Your task to perform on an android device: check battery use Image 0: 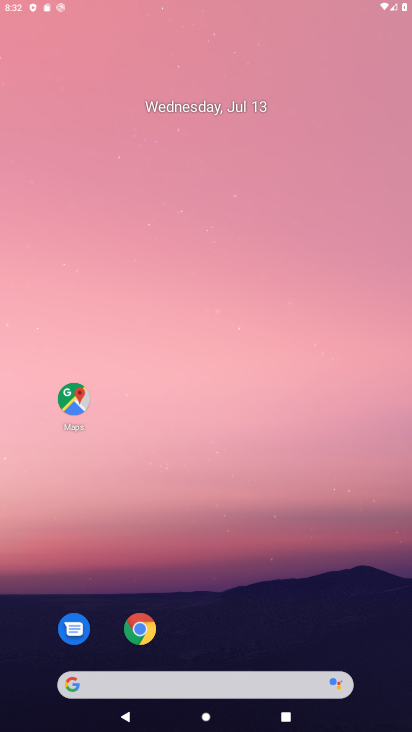
Step 0: click (326, 196)
Your task to perform on an android device: check battery use Image 1: 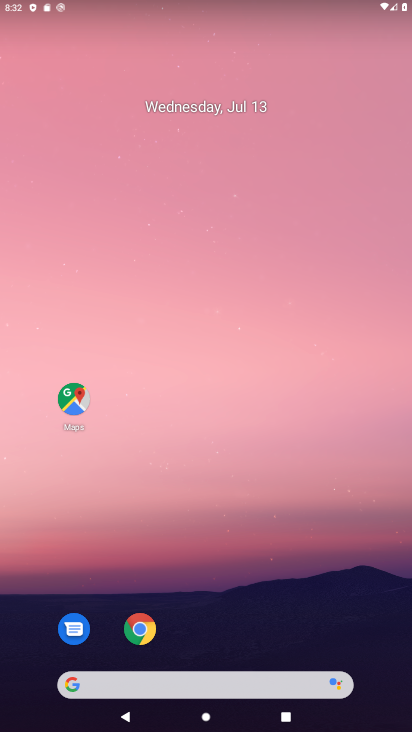
Step 1: drag from (217, 614) to (288, 244)
Your task to perform on an android device: check battery use Image 2: 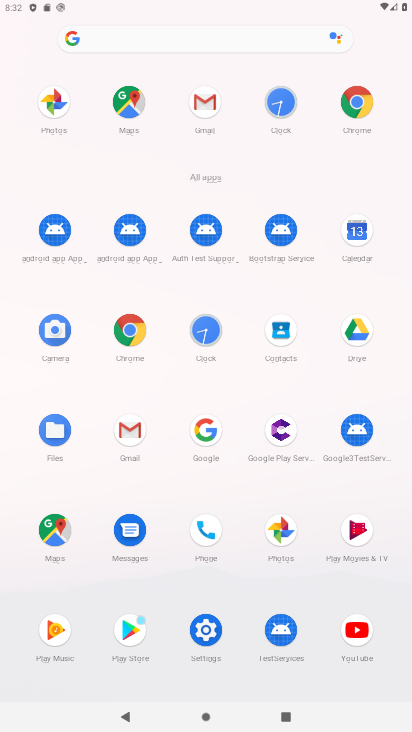
Step 2: click (202, 629)
Your task to perform on an android device: check battery use Image 3: 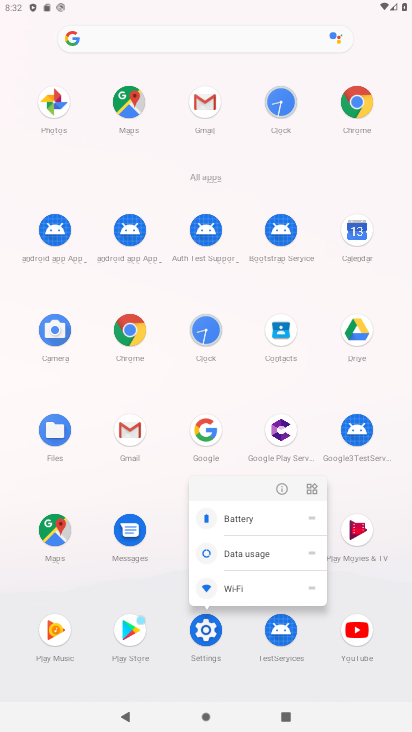
Step 3: click (202, 631)
Your task to perform on an android device: check battery use Image 4: 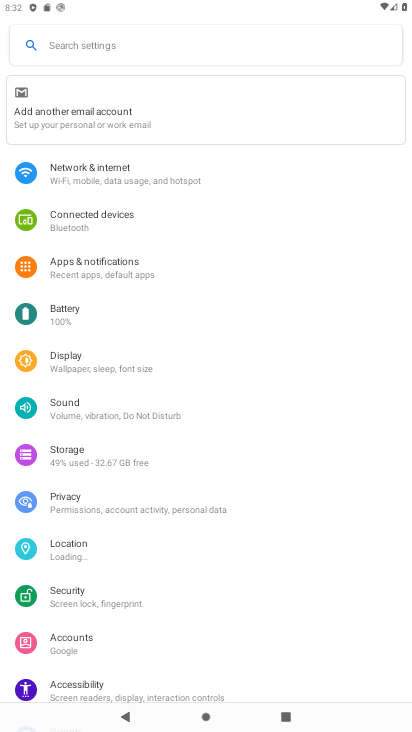
Step 4: click (77, 305)
Your task to perform on an android device: check battery use Image 5: 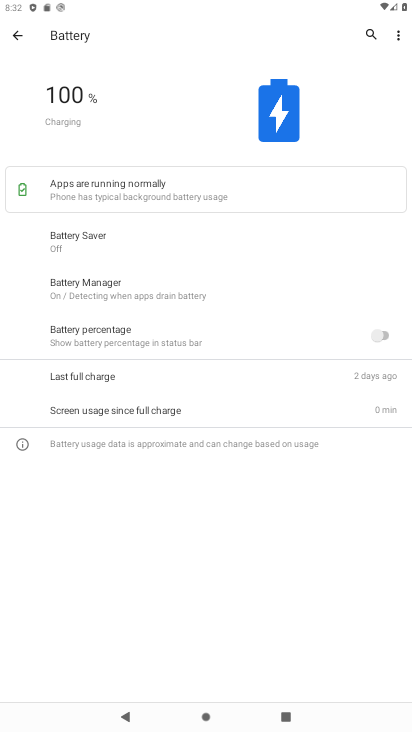
Step 5: drag from (399, 33) to (379, 61)
Your task to perform on an android device: check battery use Image 6: 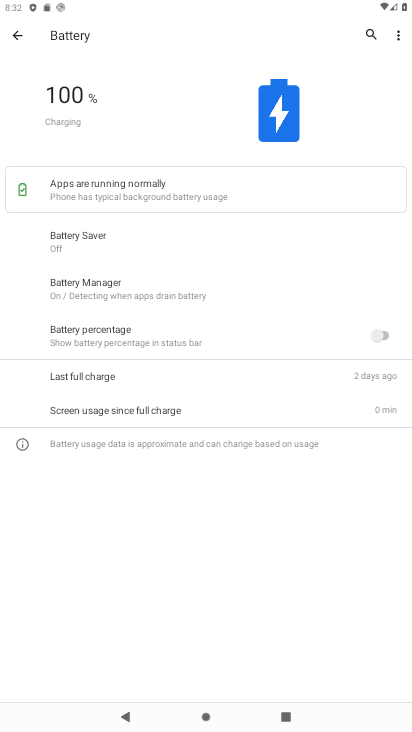
Step 6: click (361, 32)
Your task to perform on an android device: check battery use Image 7: 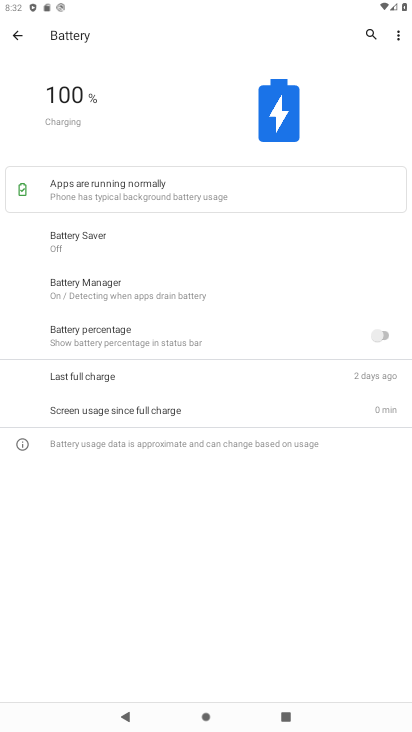
Step 7: click (401, 34)
Your task to perform on an android device: check battery use Image 8: 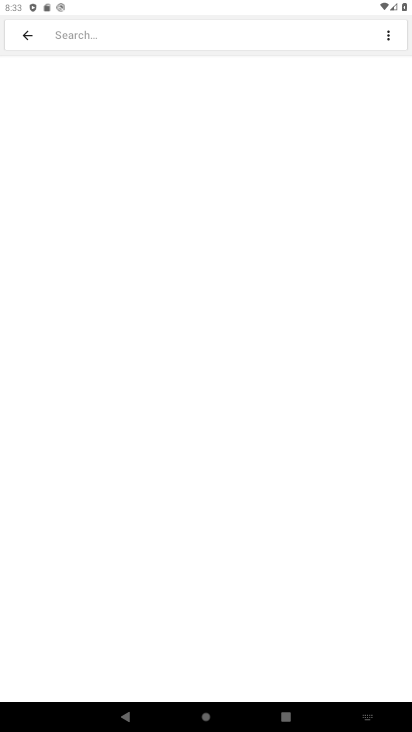
Step 8: click (24, 29)
Your task to perform on an android device: check battery use Image 9: 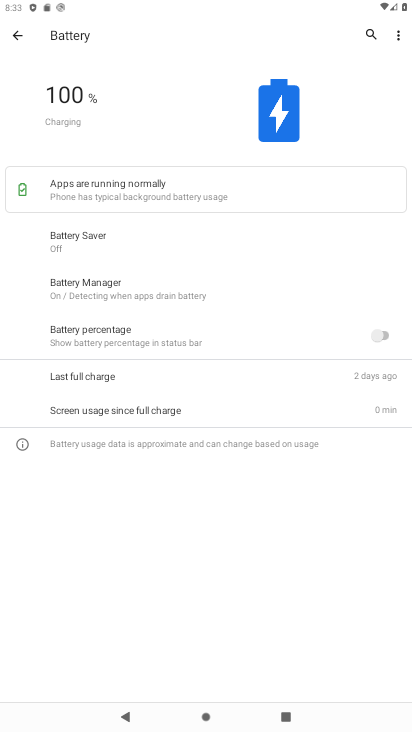
Step 9: click (395, 34)
Your task to perform on an android device: check battery use Image 10: 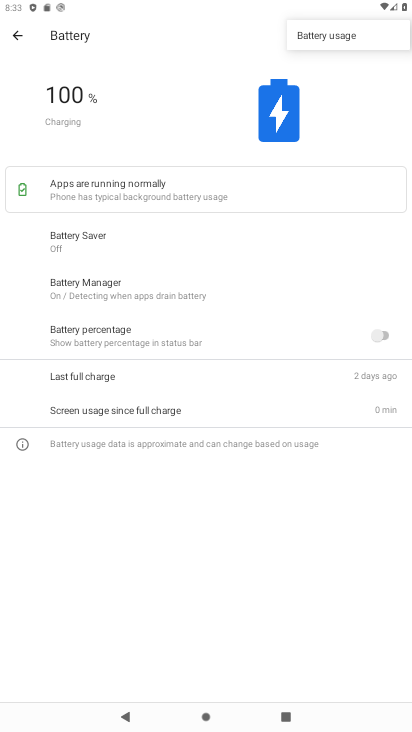
Step 10: click (322, 36)
Your task to perform on an android device: check battery use Image 11: 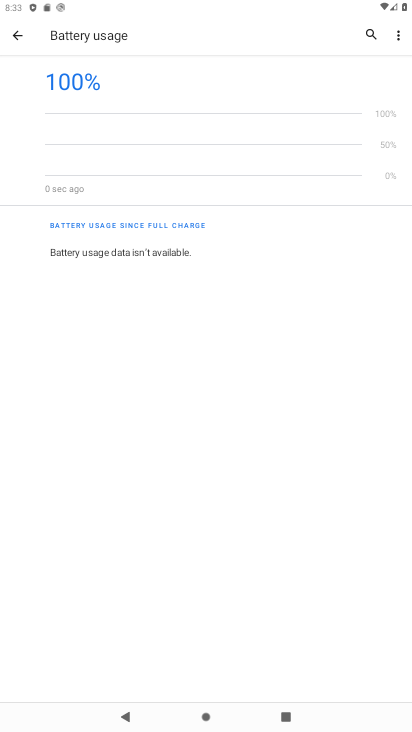
Step 11: task complete